Your task to perform on an android device: turn on airplane mode Image 0: 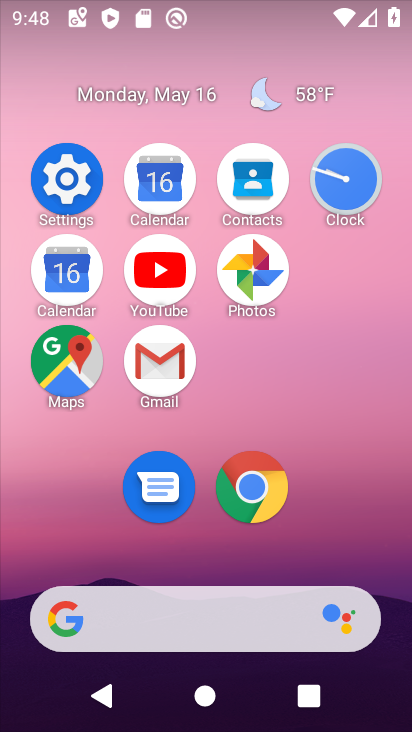
Step 0: click (82, 188)
Your task to perform on an android device: turn on airplane mode Image 1: 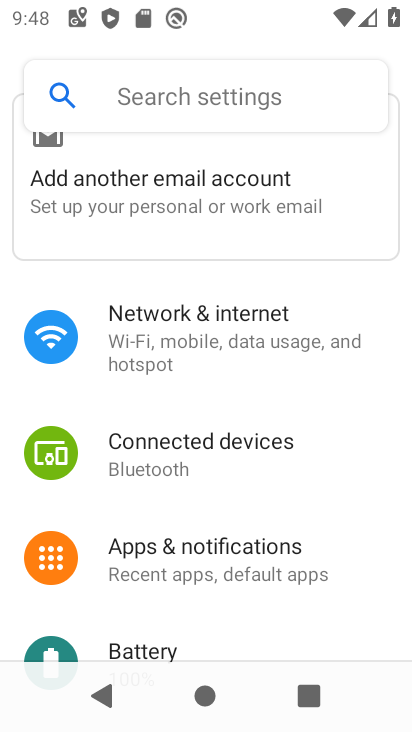
Step 1: click (234, 362)
Your task to perform on an android device: turn on airplane mode Image 2: 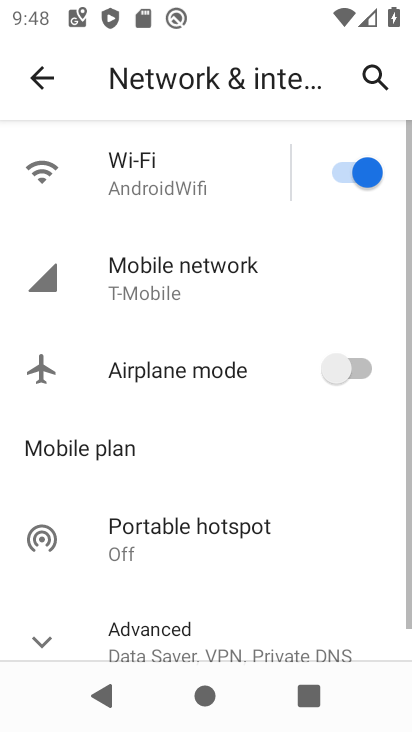
Step 2: click (344, 385)
Your task to perform on an android device: turn on airplane mode Image 3: 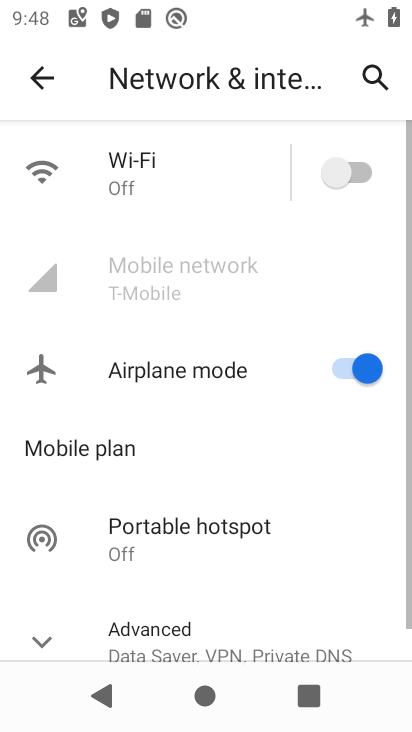
Step 3: task complete